Your task to perform on an android device: When is my next meeting? Image 0: 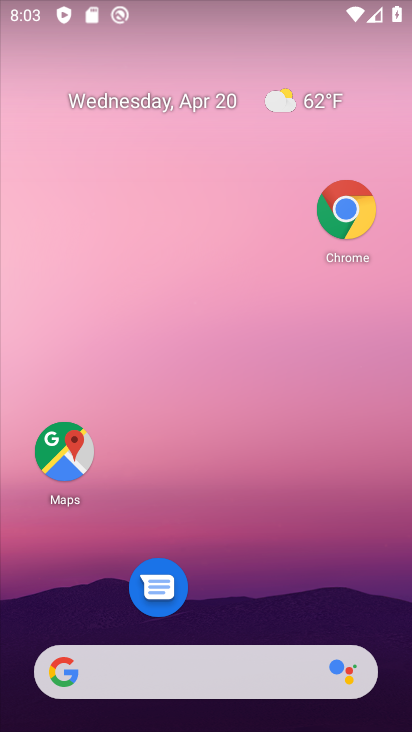
Step 0: click (168, 103)
Your task to perform on an android device: When is my next meeting? Image 1: 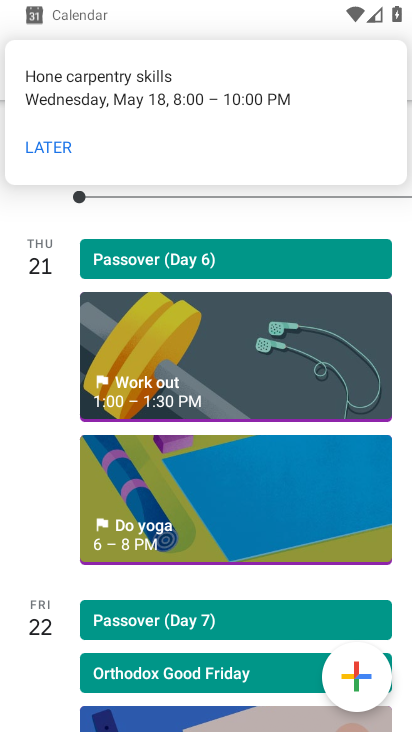
Step 1: task complete